Your task to perform on an android device: Open the map Image 0: 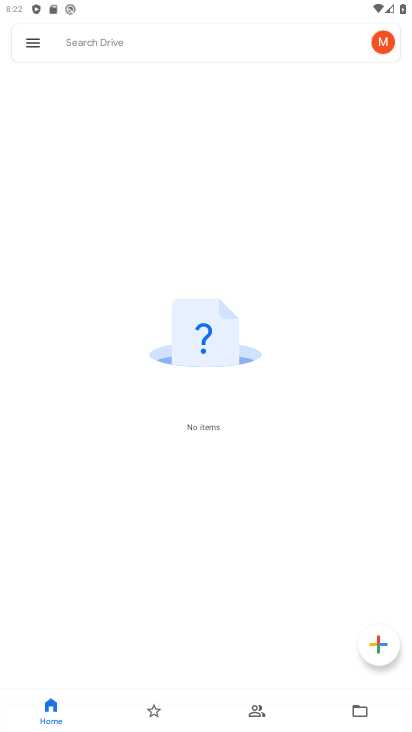
Step 0: press home button
Your task to perform on an android device: Open the map Image 1: 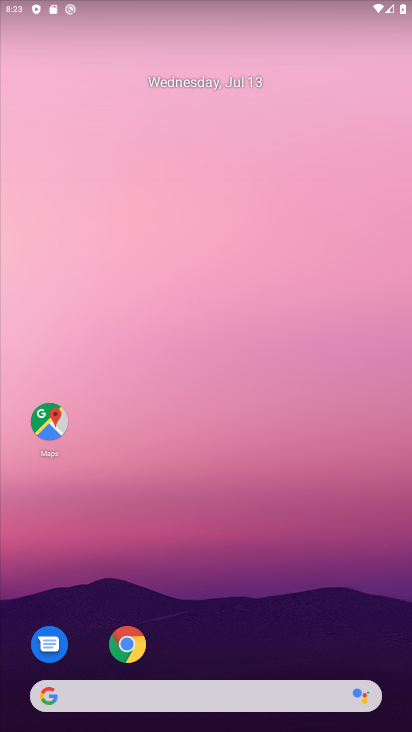
Step 1: drag from (194, 728) to (207, 272)
Your task to perform on an android device: Open the map Image 2: 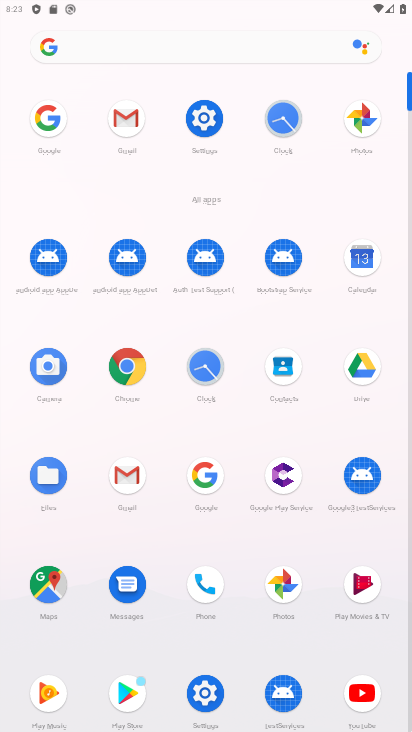
Step 2: click (46, 590)
Your task to perform on an android device: Open the map Image 3: 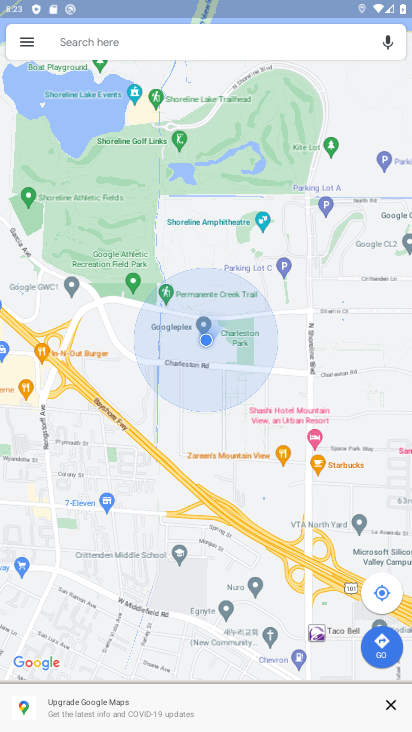
Step 3: task complete